Your task to perform on an android device: clear history in the chrome app Image 0: 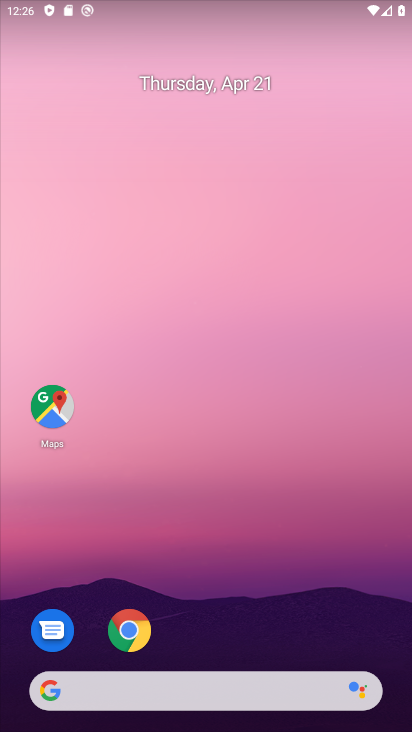
Step 0: drag from (193, 642) to (214, 11)
Your task to perform on an android device: clear history in the chrome app Image 1: 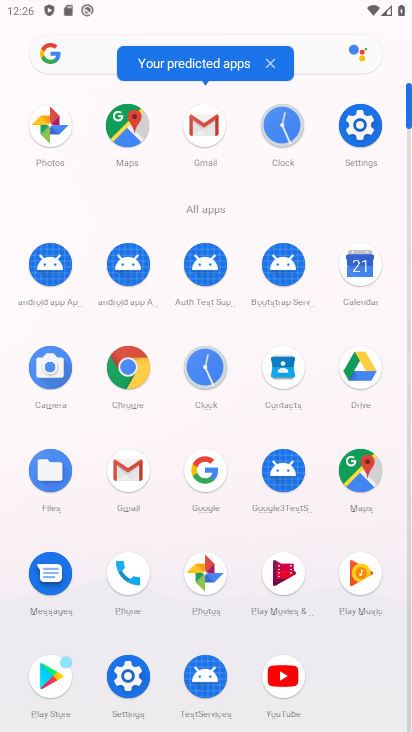
Step 1: click (126, 353)
Your task to perform on an android device: clear history in the chrome app Image 2: 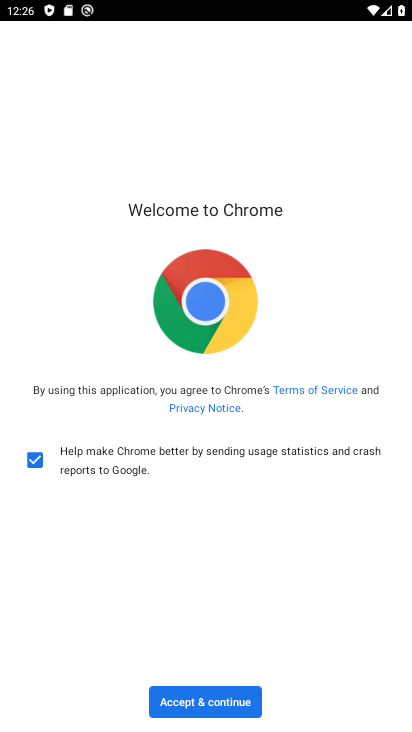
Step 2: click (241, 706)
Your task to perform on an android device: clear history in the chrome app Image 3: 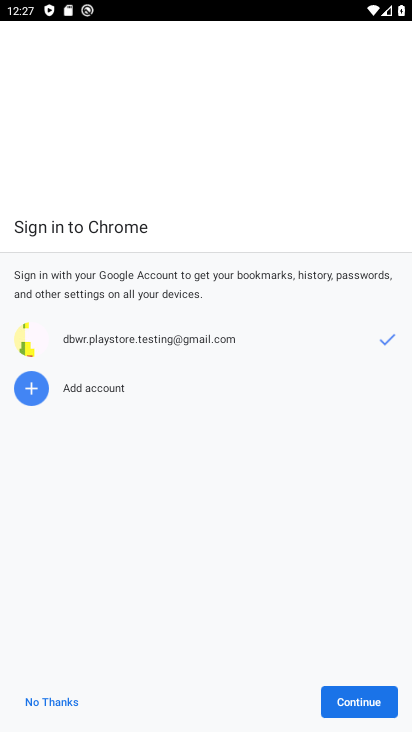
Step 3: click (59, 698)
Your task to perform on an android device: clear history in the chrome app Image 4: 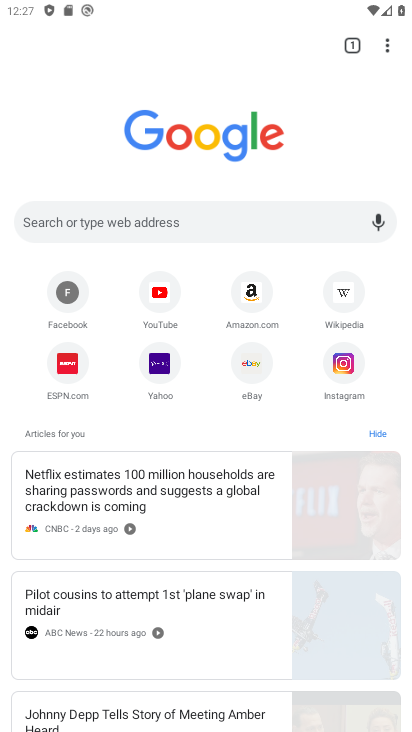
Step 4: click (388, 45)
Your task to perform on an android device: clear history in the chrome app Image 5: 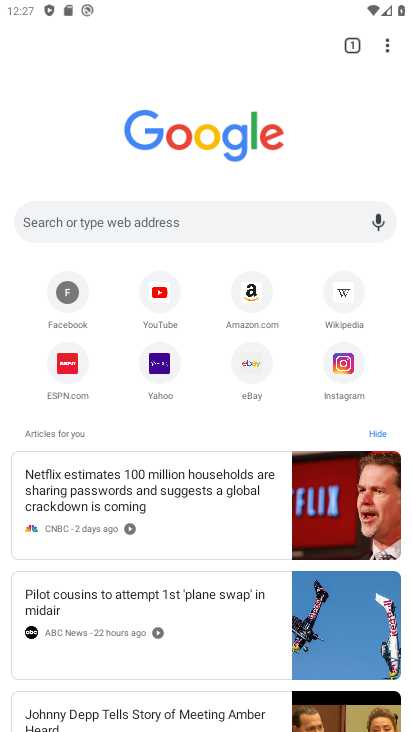
Step 5: task complete